Your task to perform on an android device: turn off airplane mode Image 0: 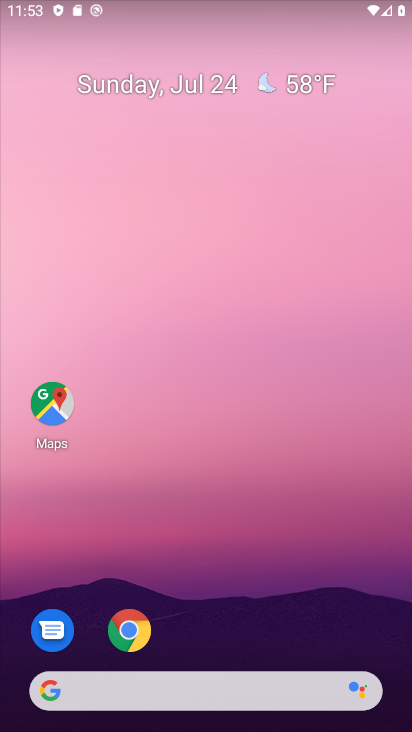
Step 0: drag from (265, 631) to (193, 122)
Your task to perform on an android device: turn off airplane mode Image 1: 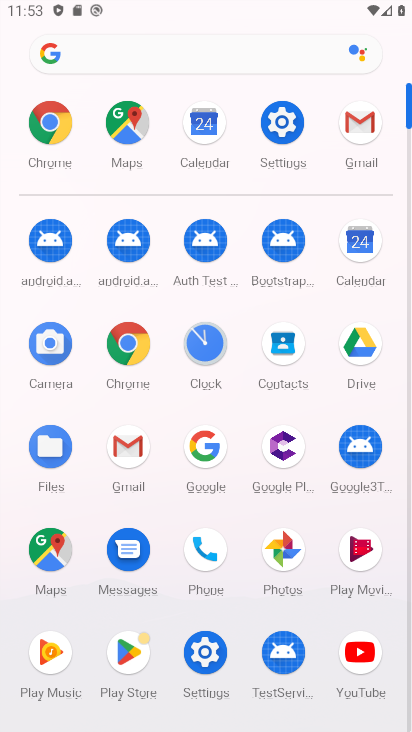
Step 1: click (284, 106)
Your task to perform on an android device: turn off airplane mode Image 2: 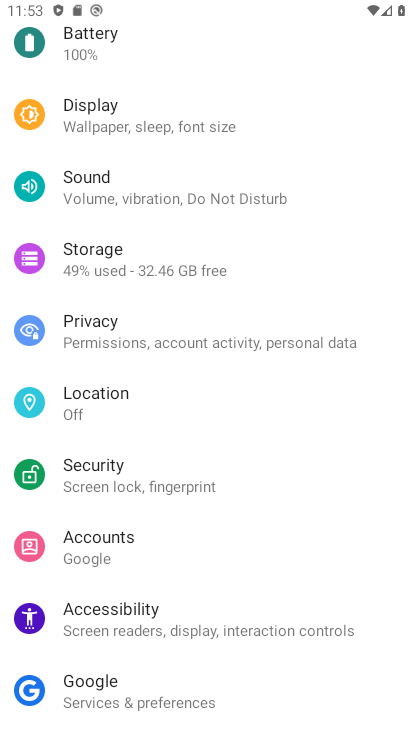
Step 2: drag from (206, 88) to (179, 639)
Your task to perform on an android device: turn off airplane mode Image 3: 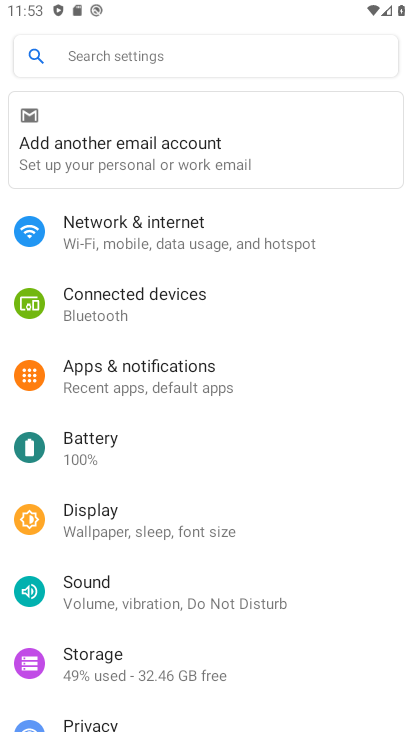
Step 3: click (177, 249)
Your task to perform on an android device: turn off airplane mode Image 4: 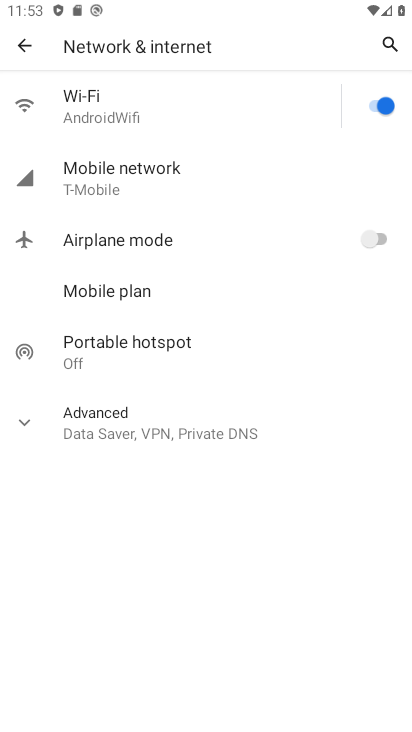
Step 4: task complete